Your task to perform on an android device: Turn on the flashlight Image 0: 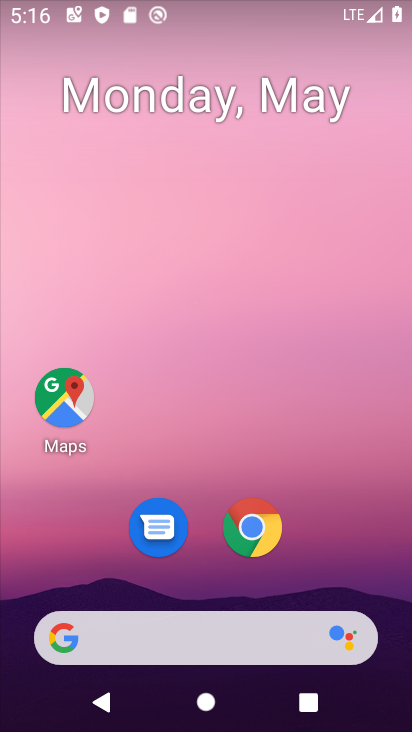
Step 0: drag from (388, 411) to (372, 207)
Your task to perform on an android device: Turn on the flashlight Image 1: 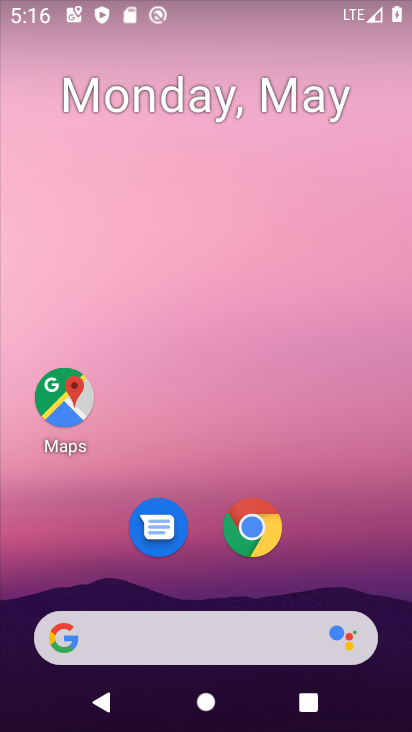
Step 1: drag from (390, 676) to (359, 155)
Your task to perform on an android device: Turn on the flashlight Image 2: 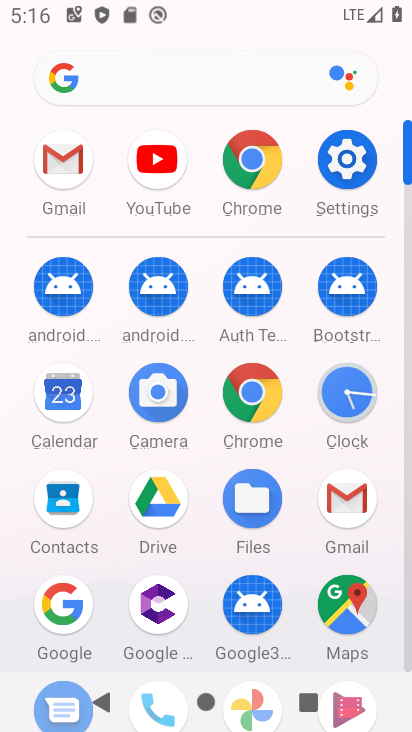
Step 2: click (352, 163)
Your task to perform on an android device: Turn on the flashlight Image 3: 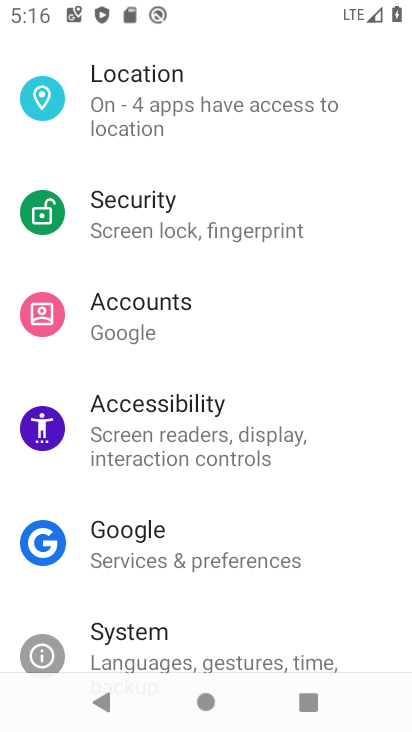
Step 3: drag from (356, 584) to (346, 210)
Your task to perform on an android device: Turn on the flashlight Image 4: 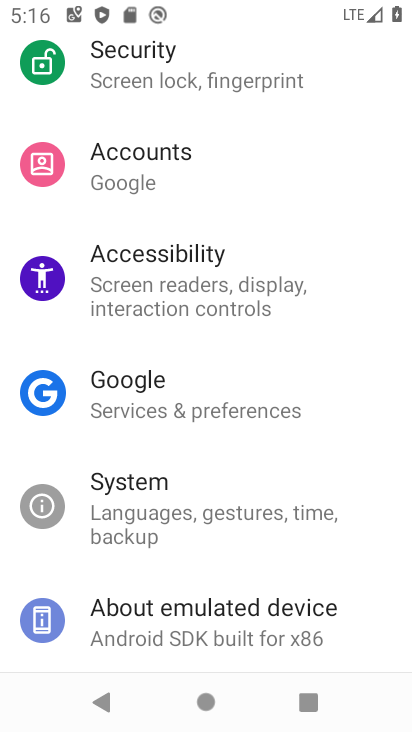
Step 4: drag from (363, 104) to (371, 647)
Your task to perform on an android device: Turn on the flashlight Image 5: 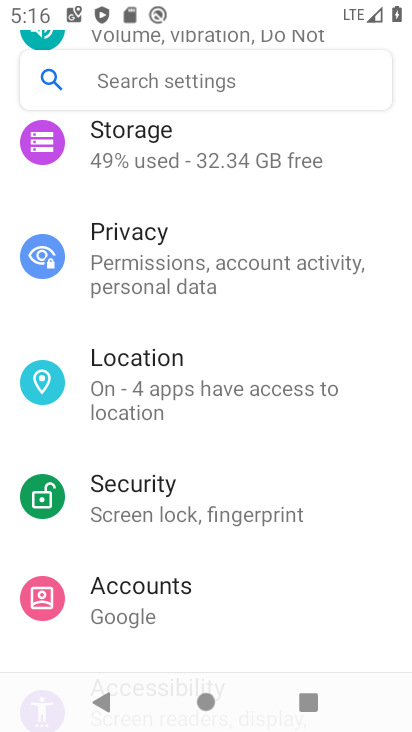
Step 5: drag from (357, 162) to (341, 624)
Your task to perform on an android device: Turn on the flashlight Image 6: 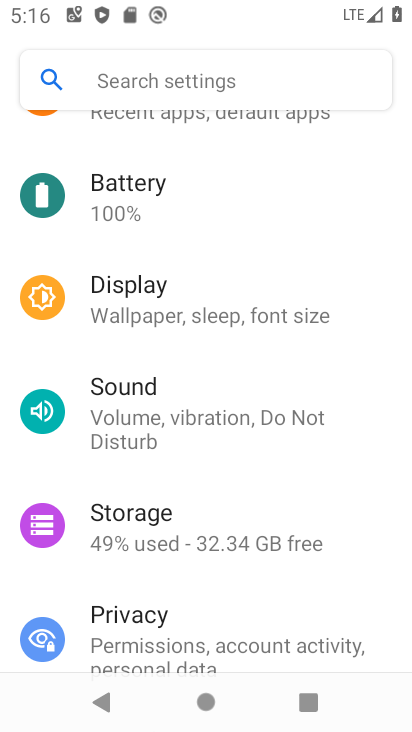
Step 6: click (115, 276)
Your task to perform on an android device: Turn on the flashlight Image 7: 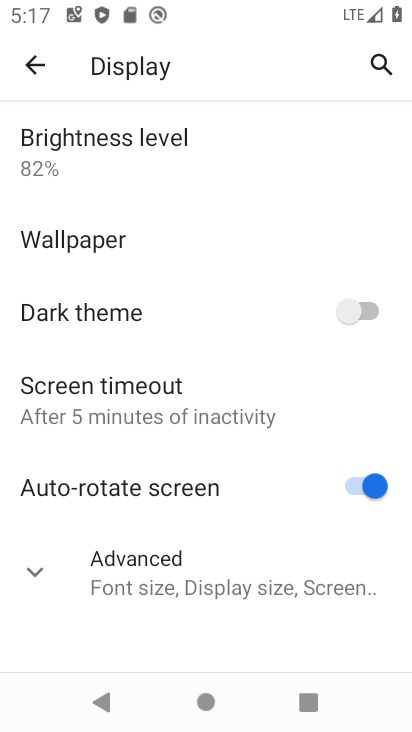
Step 7: task complete